Your task to perform on an android device: make emails show in primary in the gmail app Image 0: 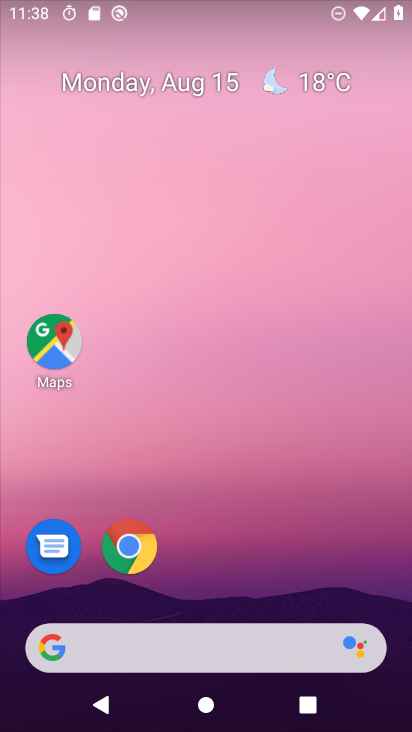
Step 0: drag from (233, 560) to (161, 140)
Your task to perform on an android device: make emails show in primary in the gmail app Image 1: 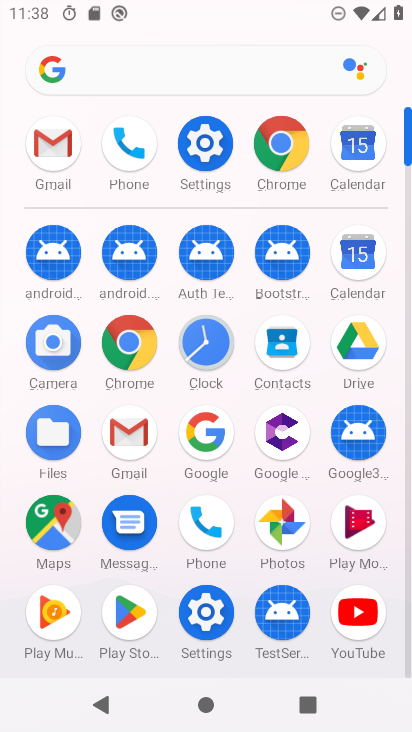
Step 1: click (128, 431)
Your task to perform on an android device: make emails show in primary in the gmail app Image 2: 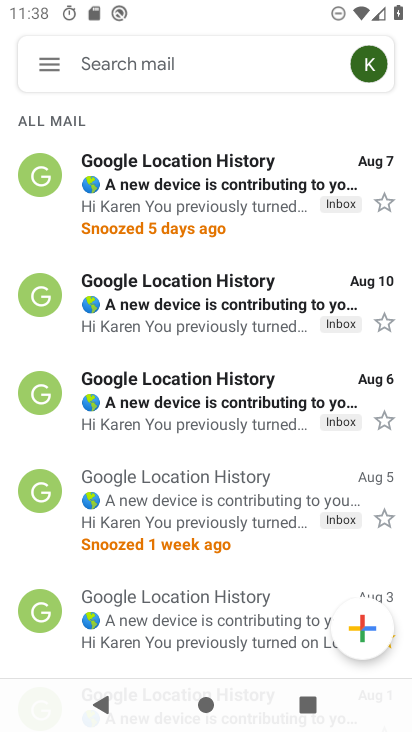
Step 2: click (50, 63)
Your task to perform on an android device: make emails show in primary in the gmail app Image 3: 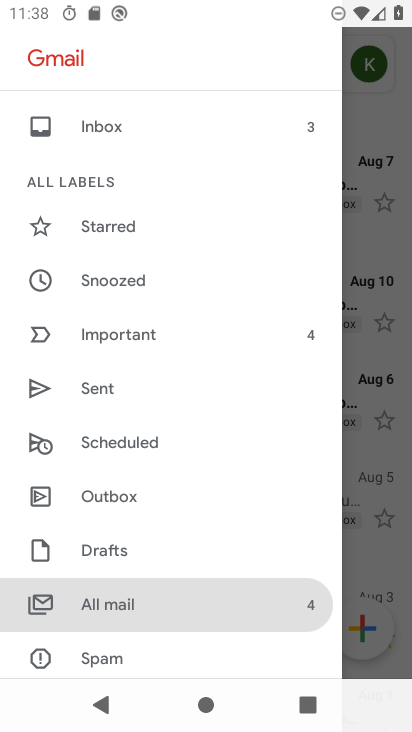
Step 3: drag from (102, 220) to (98, 448)
Your task to perform on an android device: make emails show in primary in the gmail app Image 4: 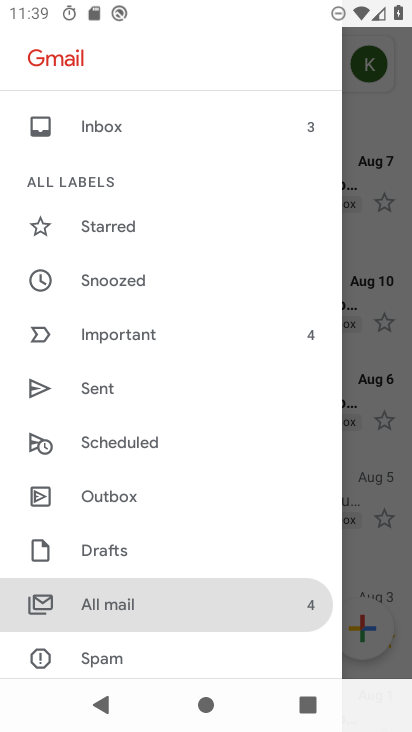
Step 4: drag from (121, 623) to (134, 292)
Your task to perform on an android device: make emails show in primary in the gmail app Image 5: 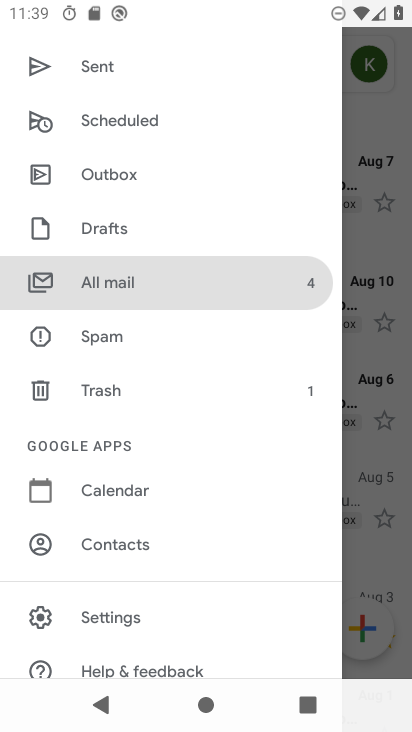
Step 5: click (119, 619)
Your task to perform on an android device: make emails show in primary in the gmail app Image 6: 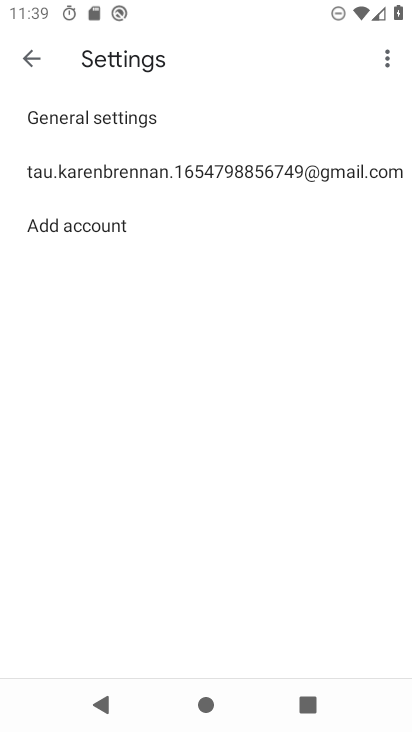
Step 6: click (146, 167)
Your task to perform on an android device: make emails show in primary in the gmail app Image 7: 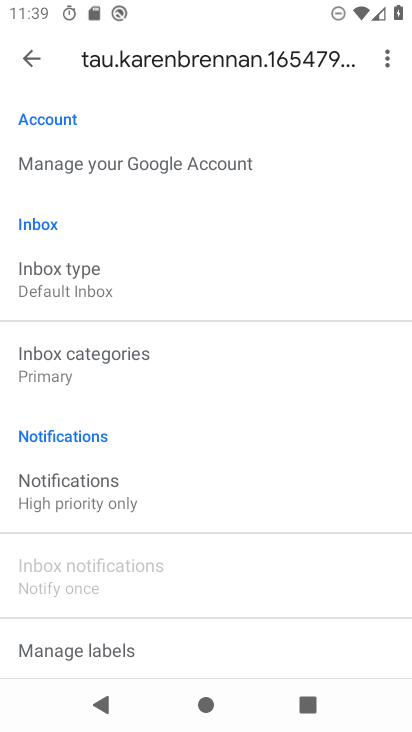
Step 7: task complete